Your task to perform on an android device: When is my next appointment? Image 0: 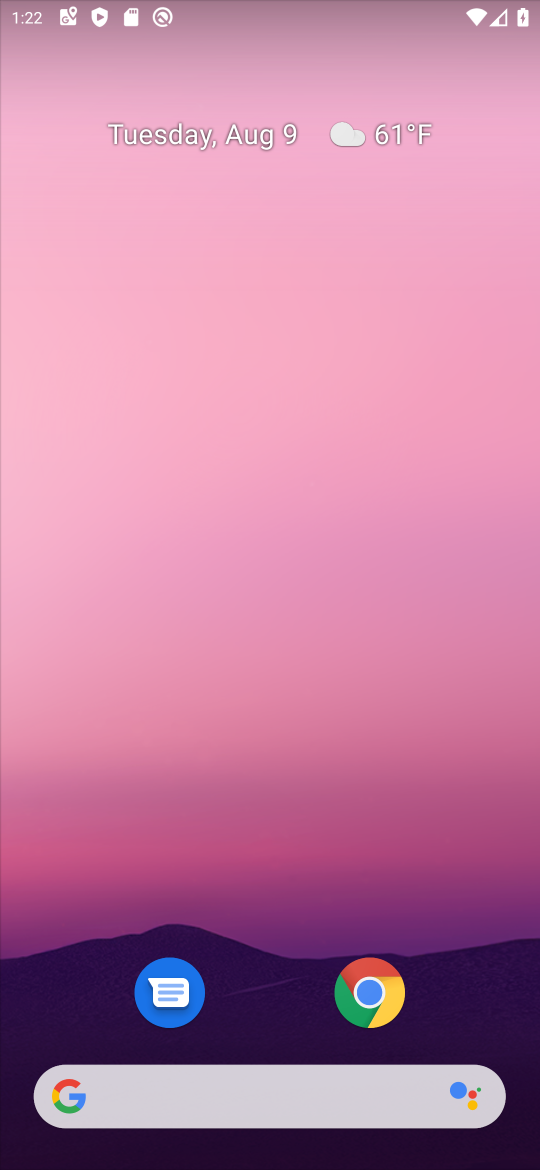
Step 0: drag from (358, 972) to (379, 249)
Your task to perform on an android device: When is my next appointment? Image 1: 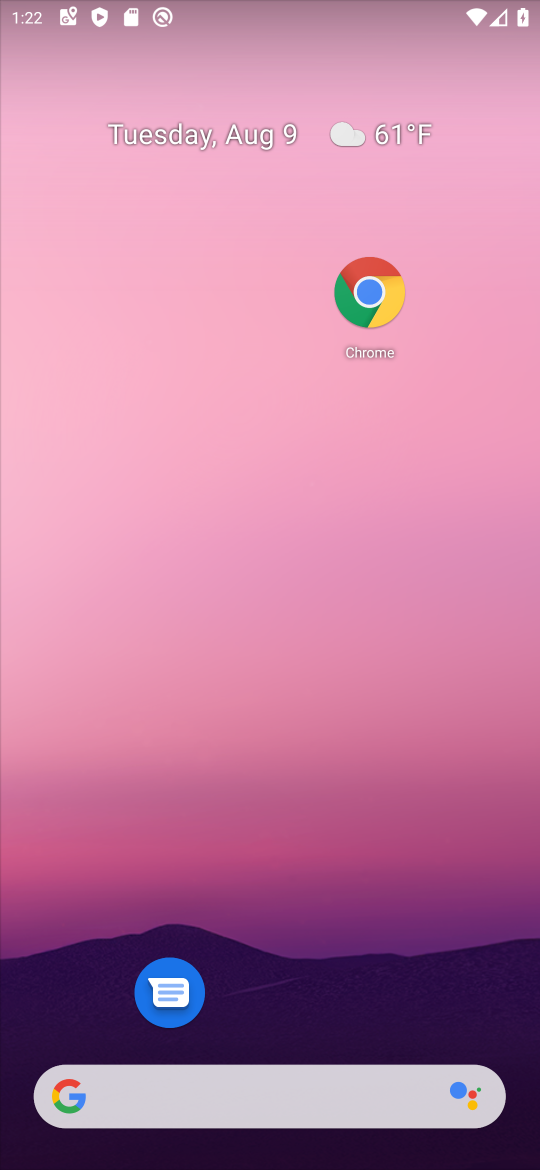
Step 1: drag from (273, 925) to (211, 403)
Your task to perform on an android device: When is my next appointment? Image 2: 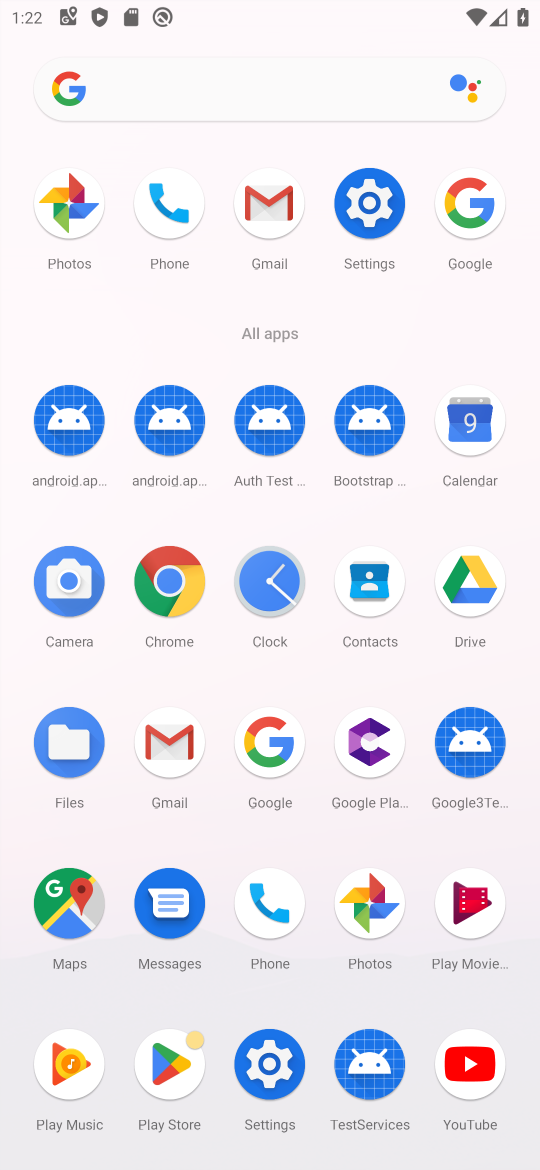
Step 2: click (464, 424)
Your task to perform on an android device: When is my next appointment? Image 3: 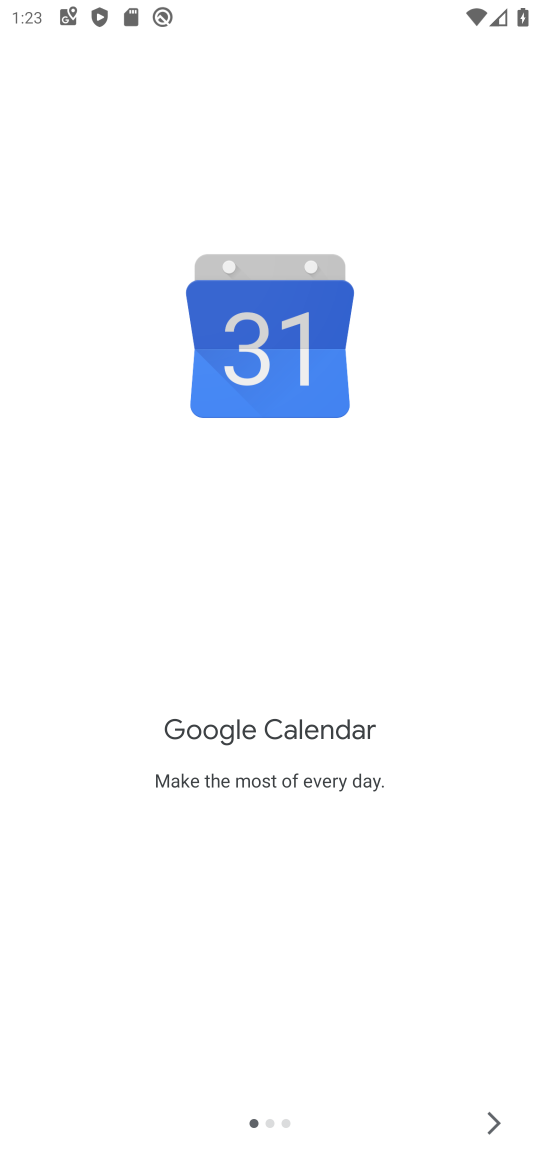
Step 3: click (503, 1129)
Your task to perform on an android device: When is my next appointment? Image 4: 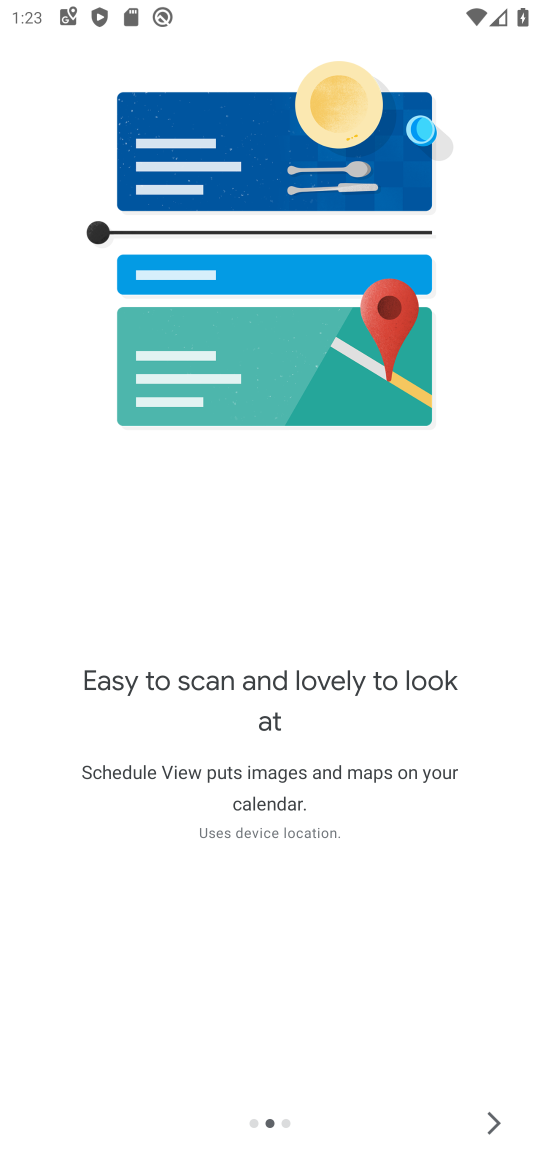
Step 4: click (493, 1123)
Your task to perform on an android device: When is my next appointment? Image 5: 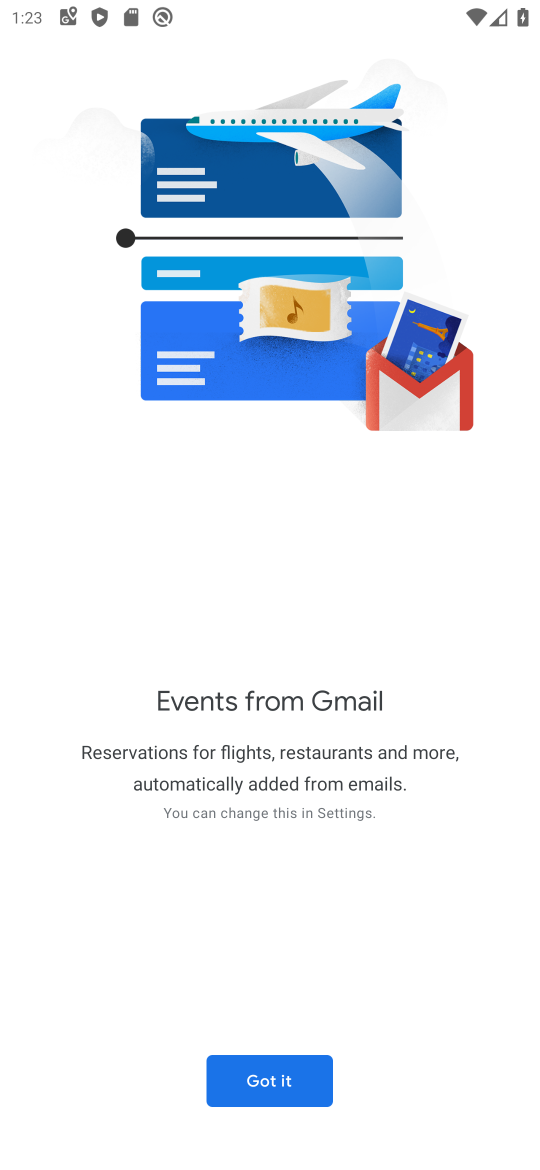
Step 5: click (253, 1077)
Your task to perform on an android device: When is my next appointment? Image 6: 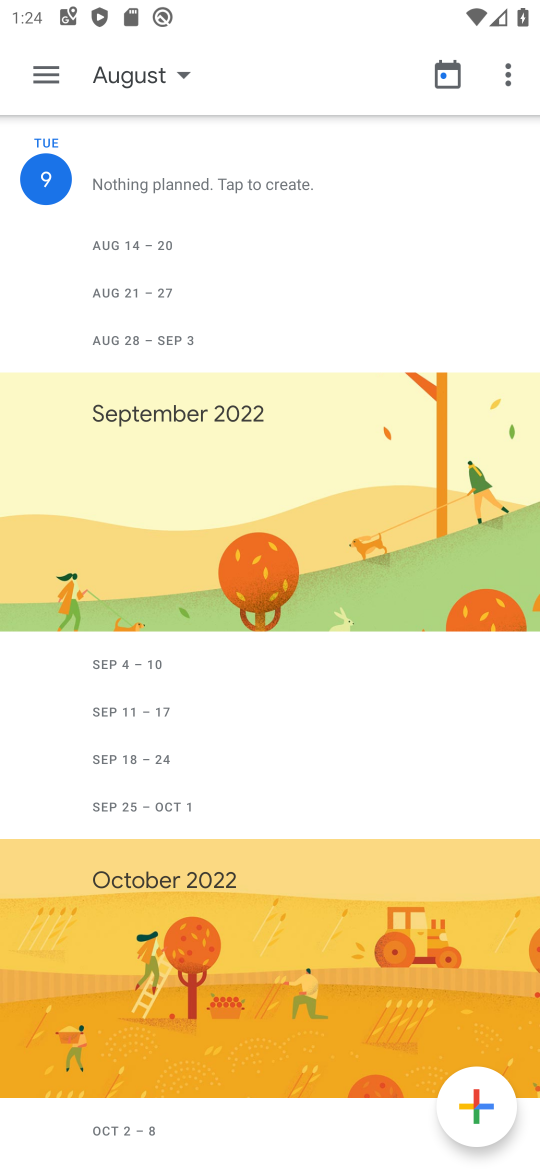
Step 6: click (44, 90)
Your task to perform on an android device: When is my next appointment? Image 7: 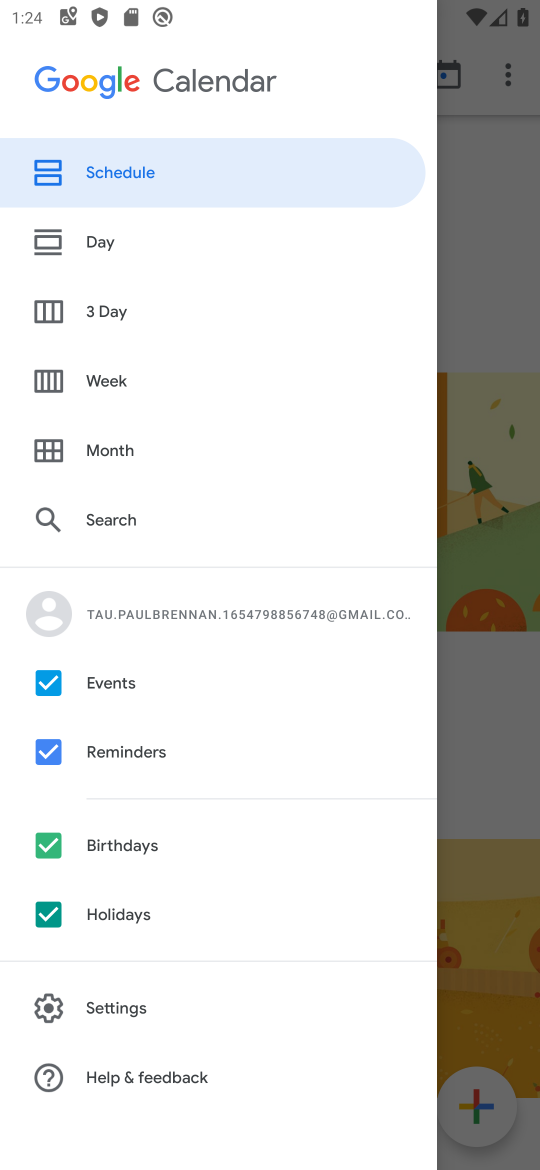
Step 7: click (49, 915)
Your task to perform on an android device: When is my next appointment? Image 8: 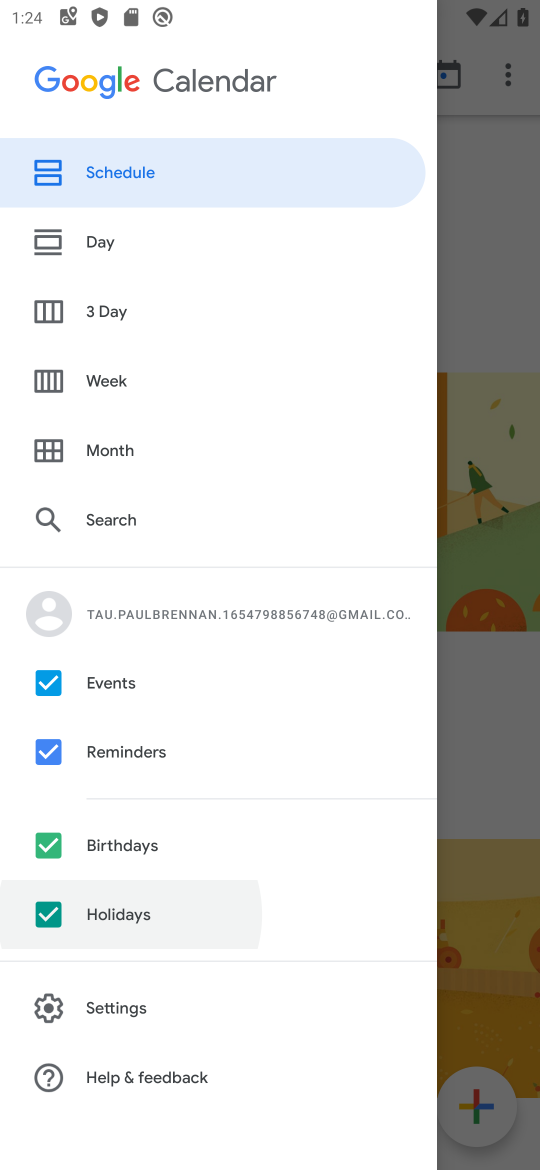
Step 8: click (56, 841)
Your task to perform on an android device: When is my next appointment? Image 9: 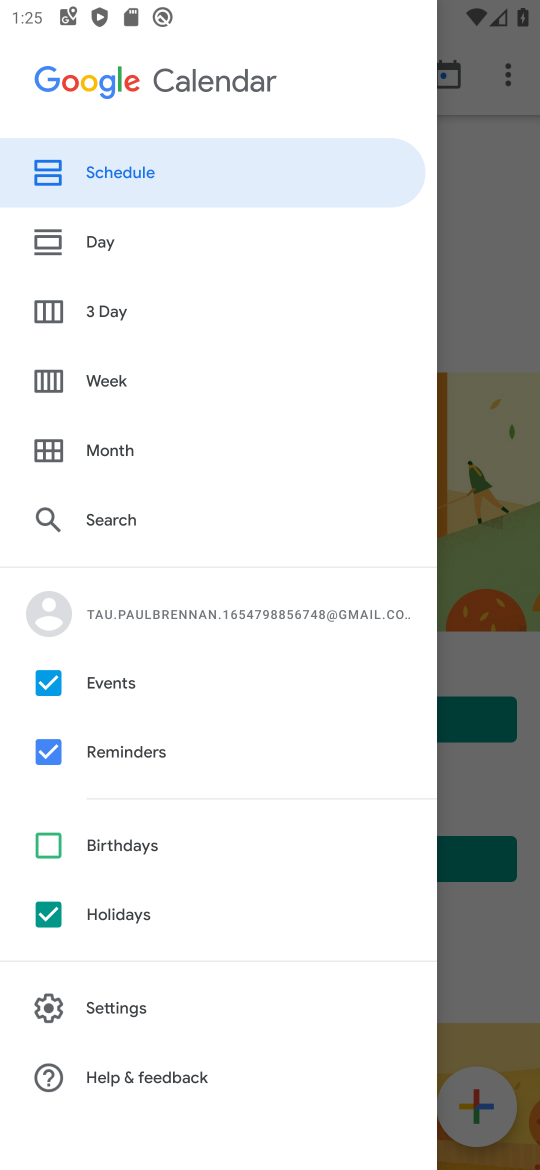
Step 9: click (56, 906)
Your task to perform on an android device: When is my next appointment? Image 10: 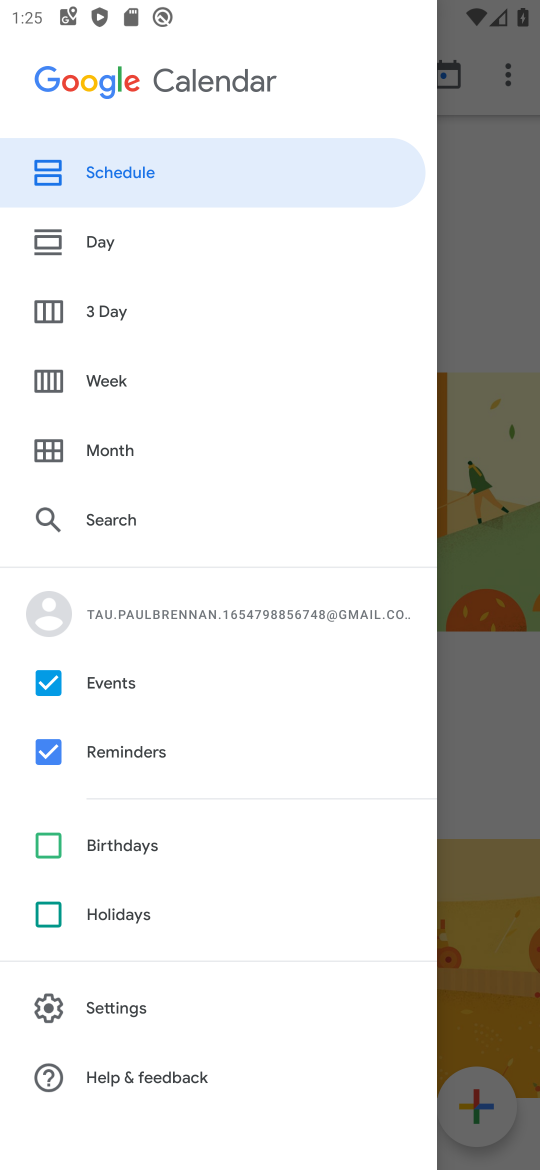
Step 10: click (485, 682)
Your task to perform on an android device: When is my next appointment? Image 11: 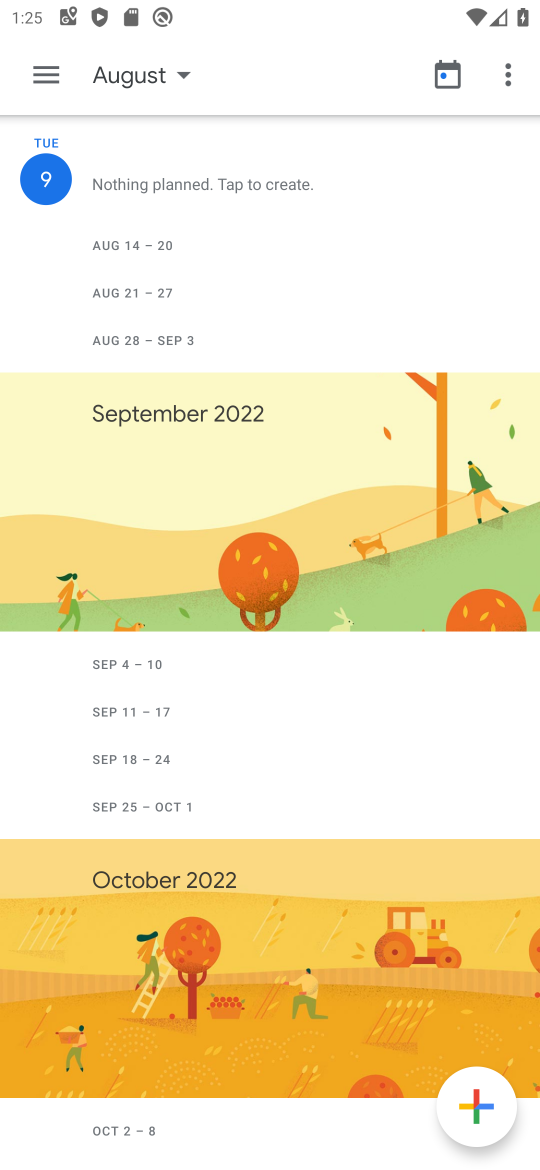
Step 11: task complete